Your task to perform on an android device: Show me productivity apps on the Play Store Image 0: 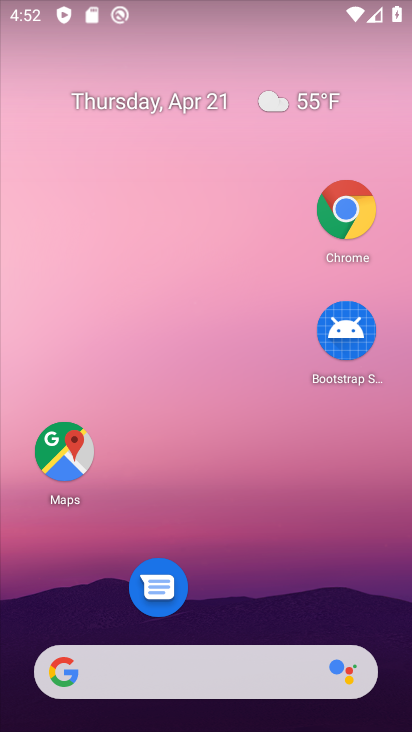
Step 0: drag from (328, 591) to (342, 107)
Your task to perform on an android device: Show me productivity apps on the Play Store Image 1: 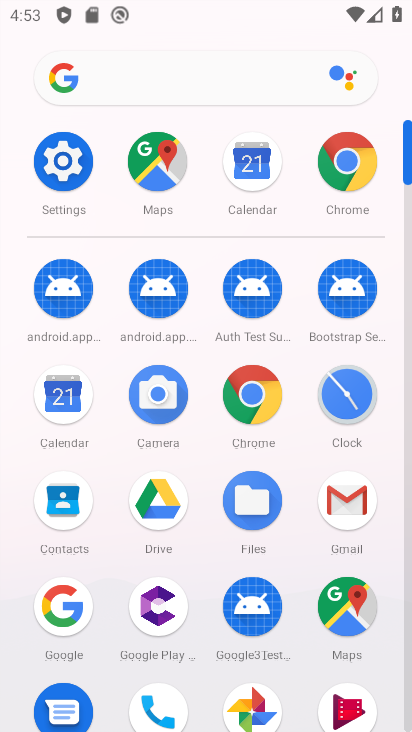
Step 1: drag from (311, 274) to (315, 25)
Your task to perform on an android device: Show me productivity apps on the Play Store Image 2: 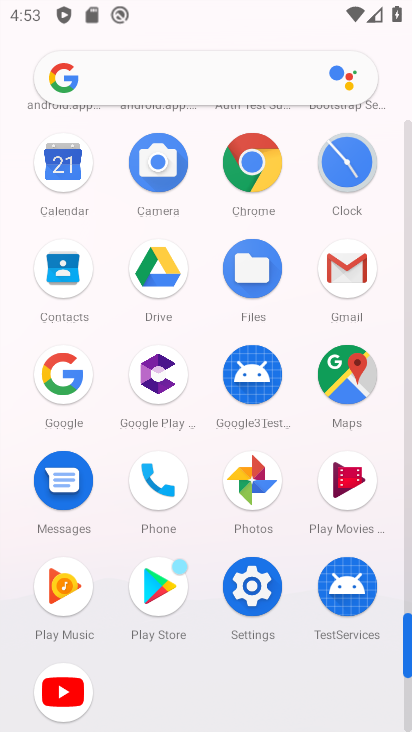
Step 2: click (165, 566)
Your task to perform on an android device: Show me productivity apps on the Play Store Image 3: 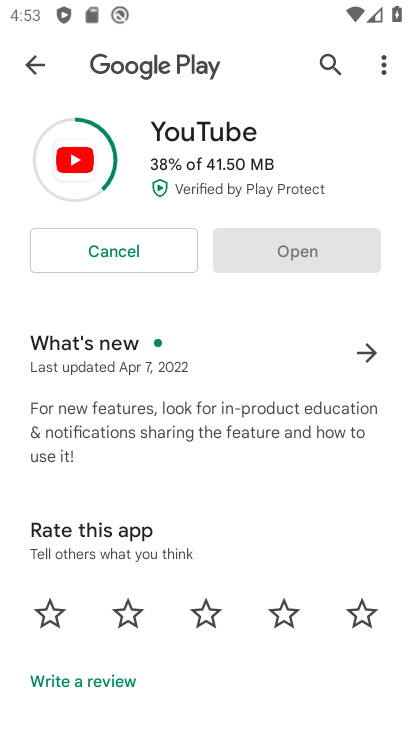
Step 3: click (32, 68)
Your task to perform on an android device: Show me productivity apps on the Play Store Image 4: 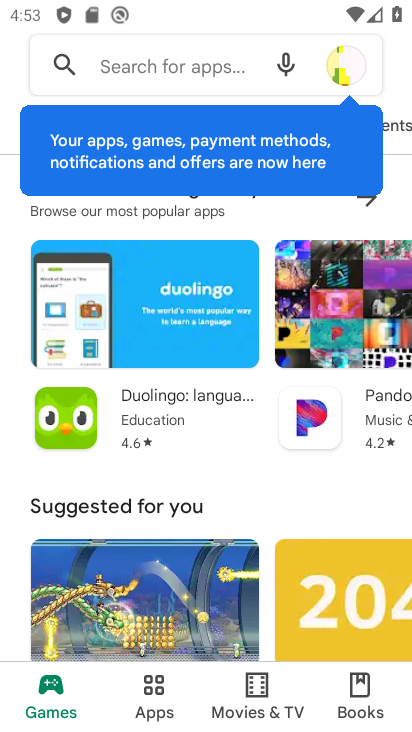
Step 4: click (157, 683)
Your task to perform on an android device: Show me productivity apps on the Play Store Image 5: 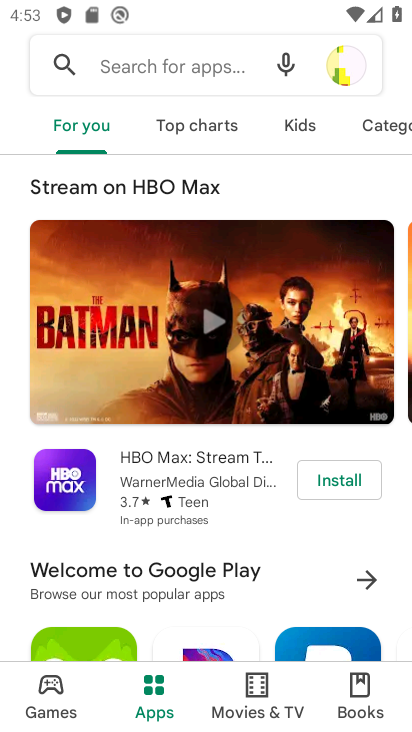
Step 5: click (175, 77)
Your task to perform on an android device: Show me productivity apps on the Play Store Image 6: 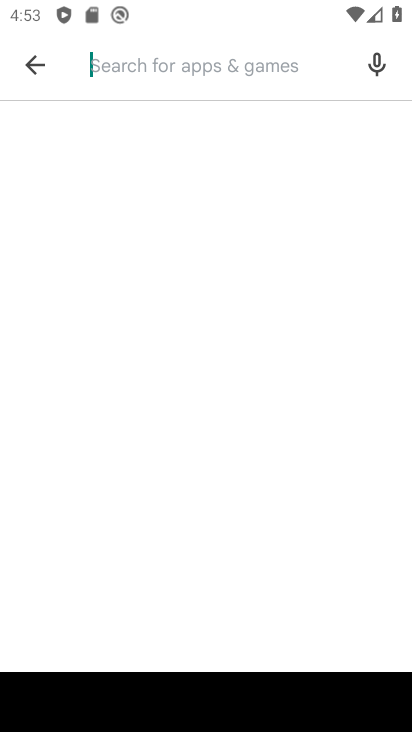
Step 6: type "productivity apps"
Your task to perform on an android device: Show me productivity apps on the Play Store Image 7: 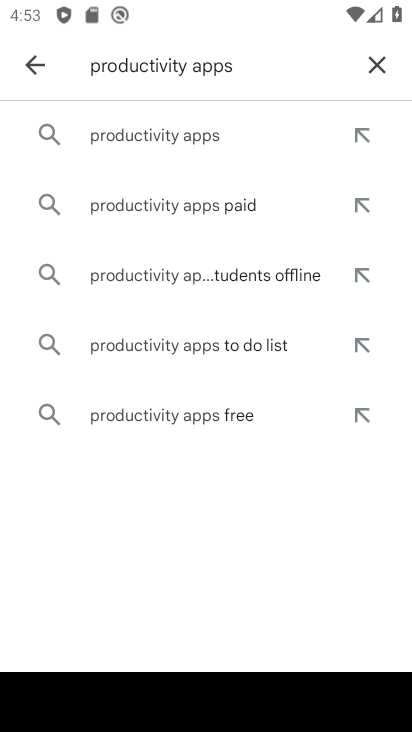
Step 7: click (149, 126)
Your task to perform on an android device: Show me productivity apps on the Play Store Image 8: 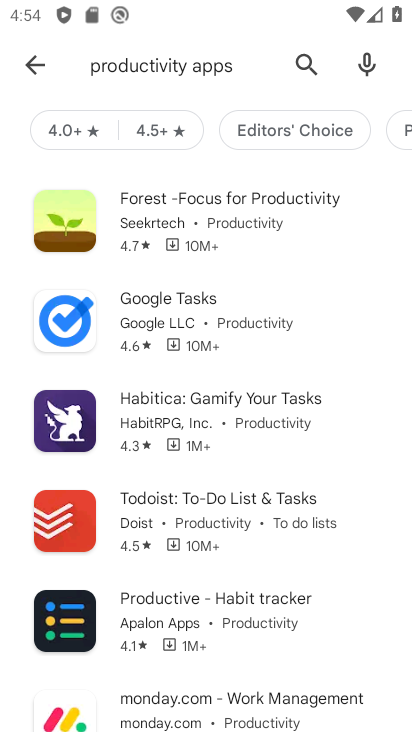
Step 8: task complete